Your task to perform on an android device: Go to Google Image 0: 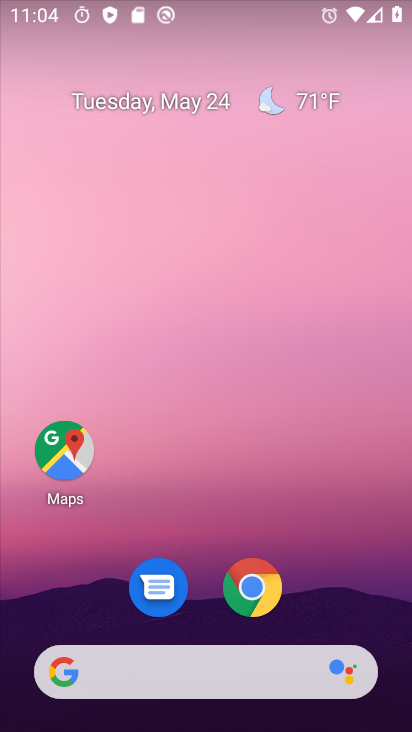
Step 0: drag from (351, 676) to (213, 152)
Your task to perform on an android device: Go to Google Image 1: 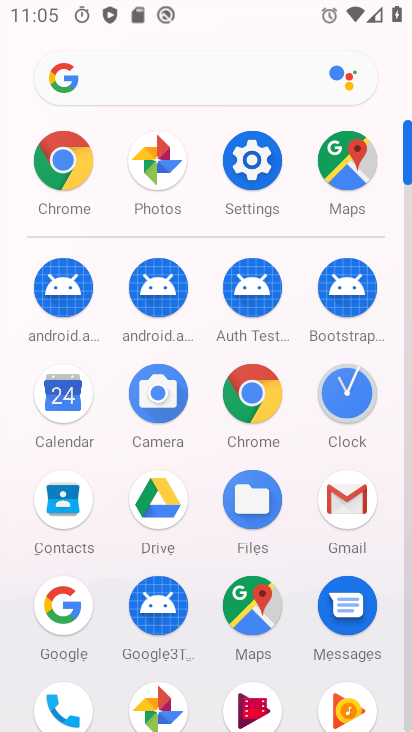
Step 1: click (58, 615)
Your task to perform on an android device: Go to Google Image 2: 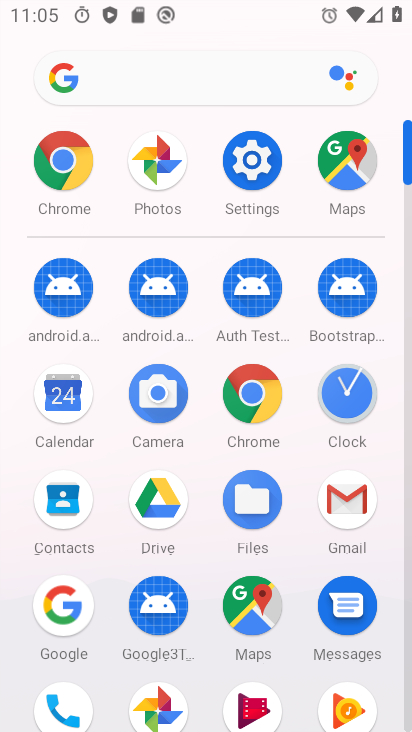
Step 2: click (62, 612)
Your task to perform on an android device: Go to Google Image 3: 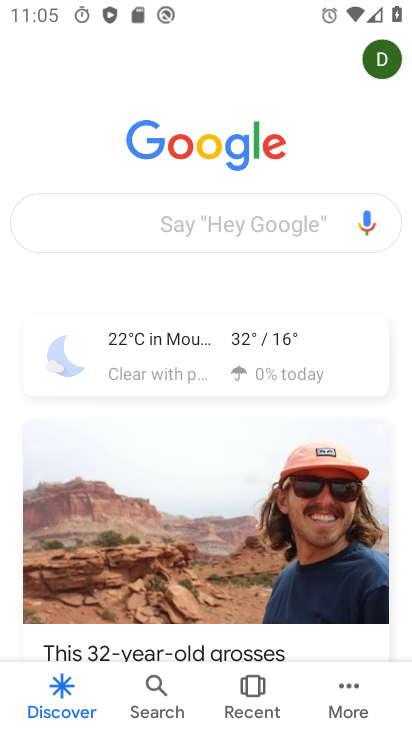
Step 3: task complete